Your task to perform on an android device: Open the web browser Image 0: 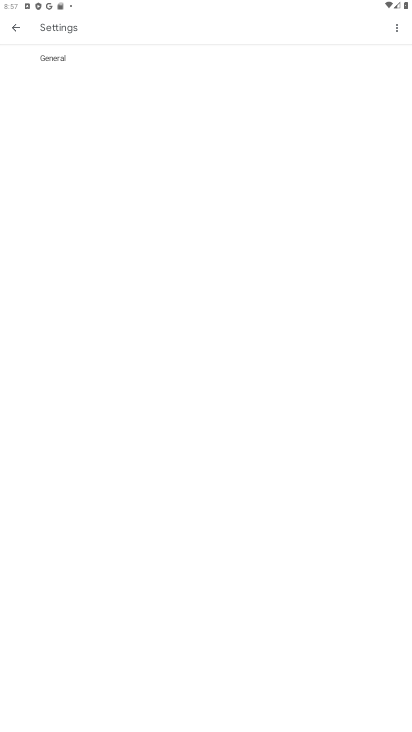
Step 0: press home button
Your task to perform on an android device: Open the web browser Image 1: 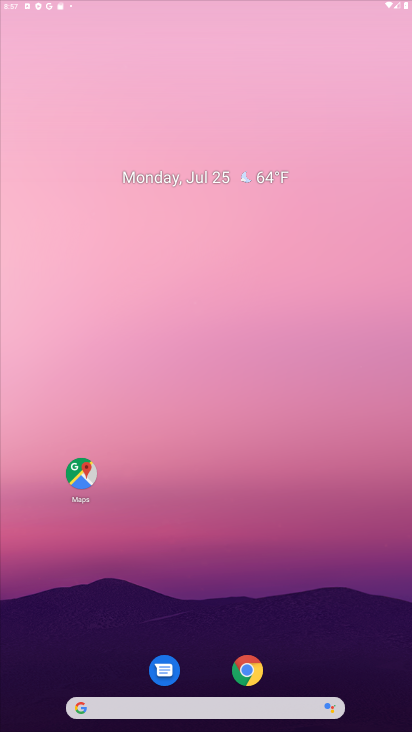
Step 1: drag from (387, 671) to (176, 7)
Your task to perform on an android device: Open the web browser Image 2: 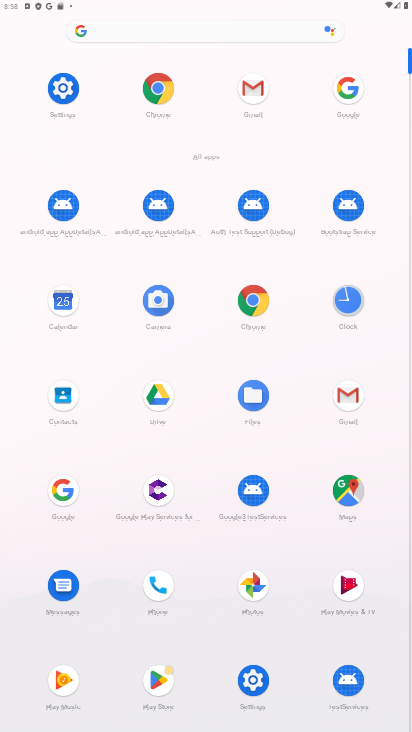
Step 2: click (74, 485)
Your task to perform on an android device: Open the web browser Image 3: 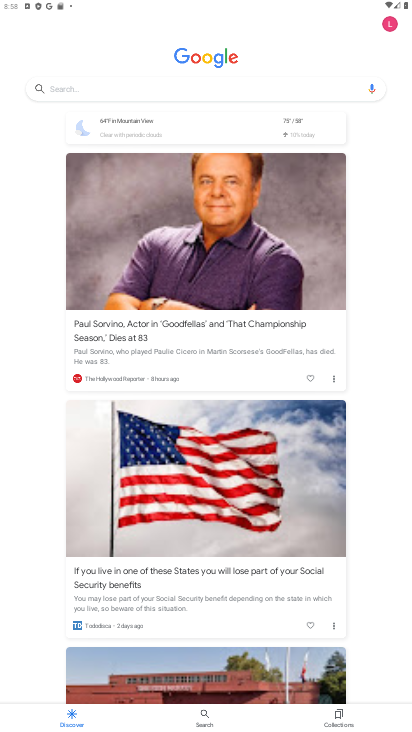
Step 3: click (96, 88)
Your task to perform on an android device: Open the web browser Image 4: 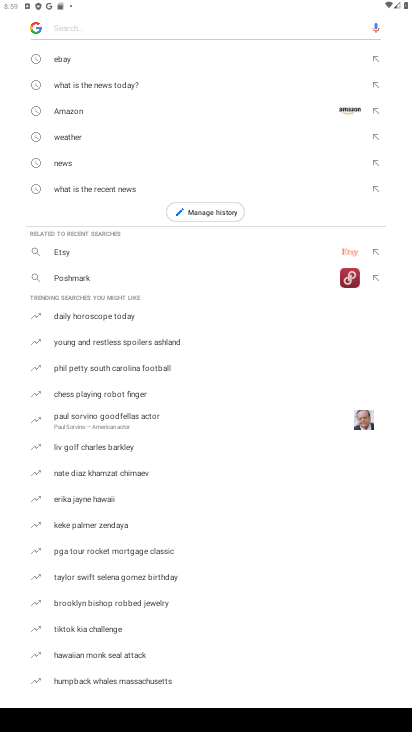
Step 4: type "web browser"
Your task to perform on an android device: Open the web browser Image 5: 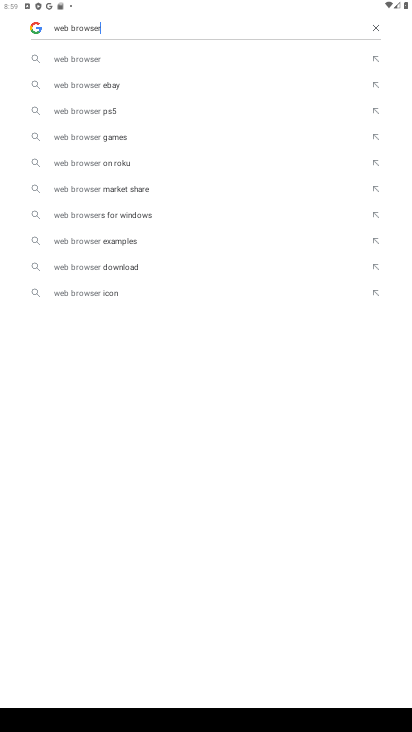
Step 5: click (87, 63)
Your task to perform on an android device: Open the web browser Image 6: 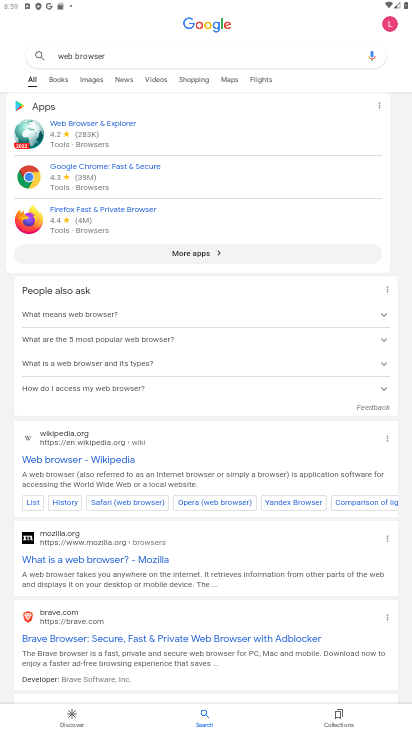
Step 6: task complete